Your task to perform on an android device: Open maps Image 0: 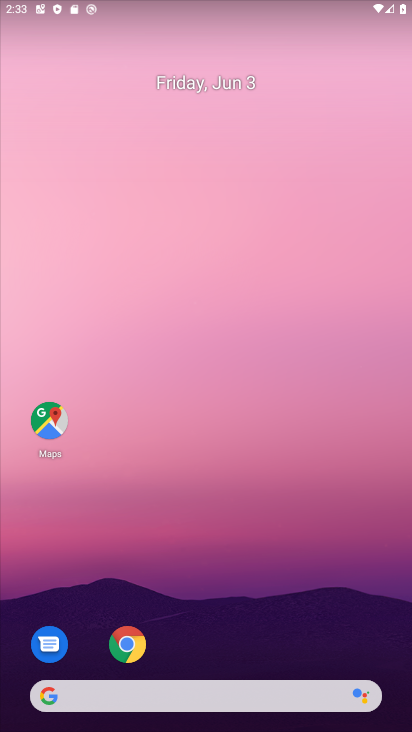
Step 0: click (61, 426)
Your task to perform on an android device: Open maps Image 1: 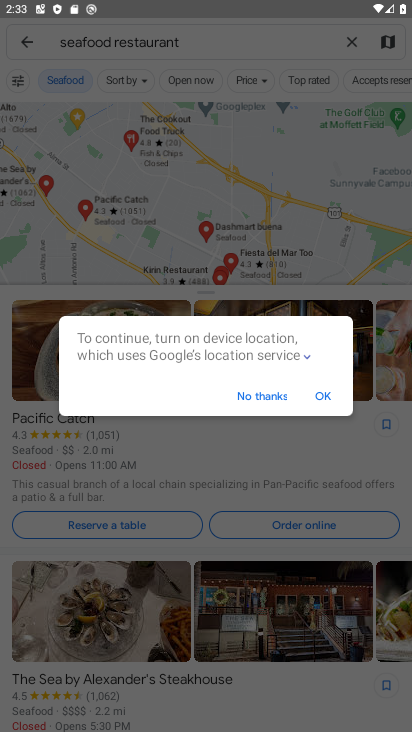
Step 1: task complete